Your task to perform on an android device: Open Chrome and go to the settings page Image 0: 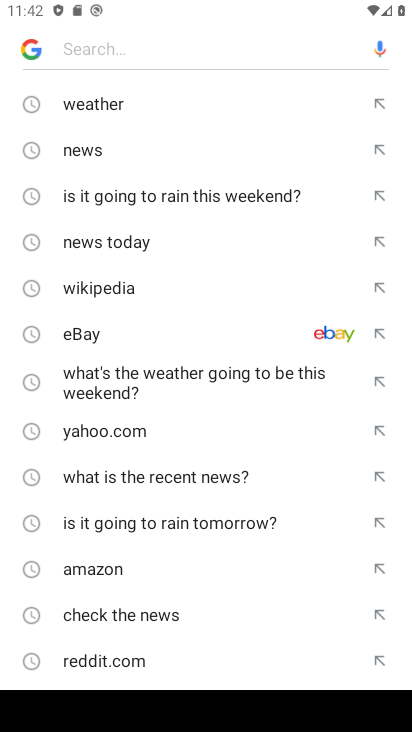
Step 0: press home button
Your task to perform on an android device: Open Chrome and go to the settings page Image 1: 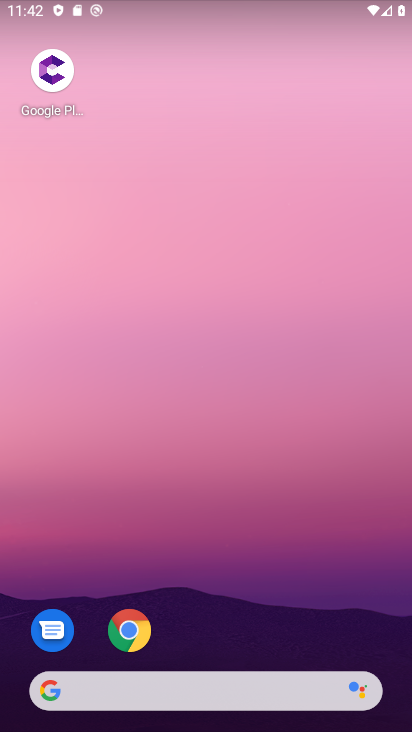
Step 1: click (133, 642)
Your task to perform on an android device: Open Chrome and go to the settings page Image 2: 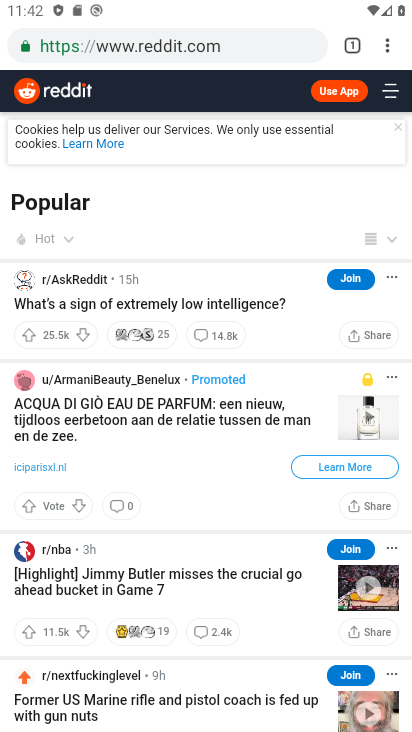
Step 2: click (349, 44)
Your task to perform on an android device: Open Chrome and go to the settings page Image 3: 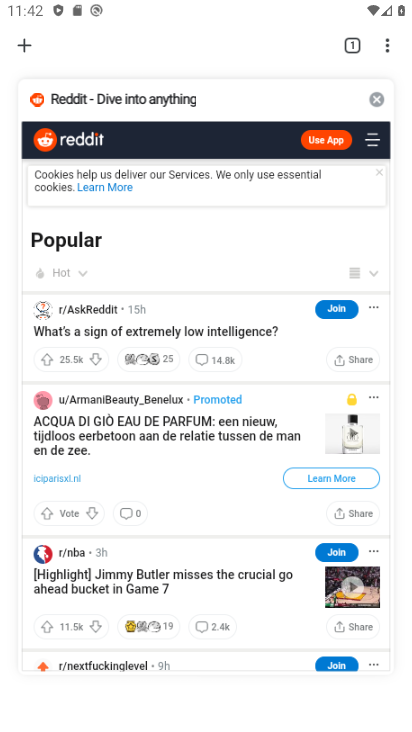
Step 3: click (394, 46)
Your task to perform on an android device: Open Chrome and go to the settings page Image 4: 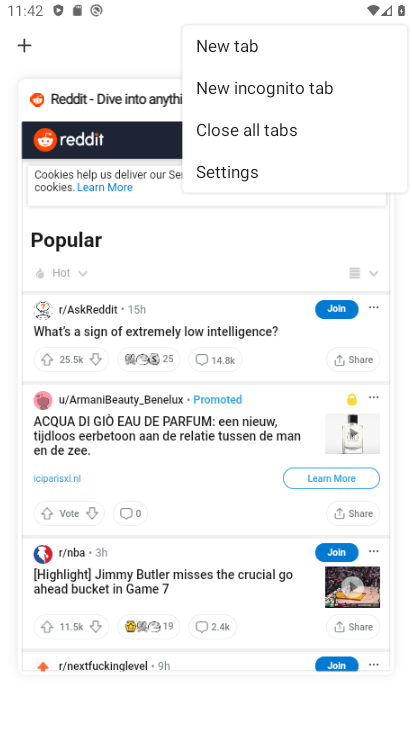
Step 4: click (238, 176)
Your task to perform on an android device: Open Chrome and go to the settings page Image 5: 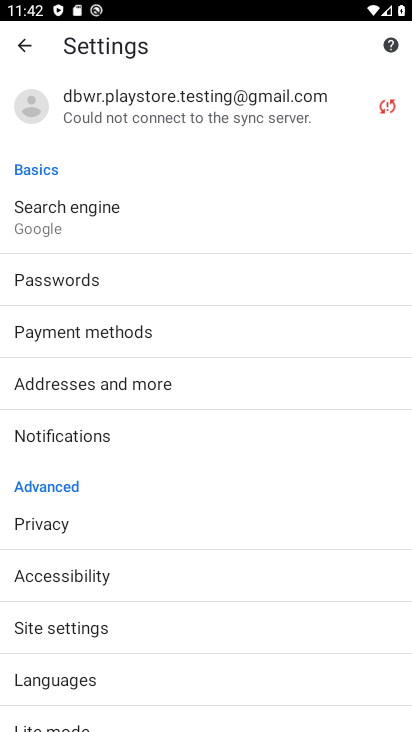
Step 5: click (92, 631)
Your task to perform on an android device: Open Chrome and go to the settings page Image 6: 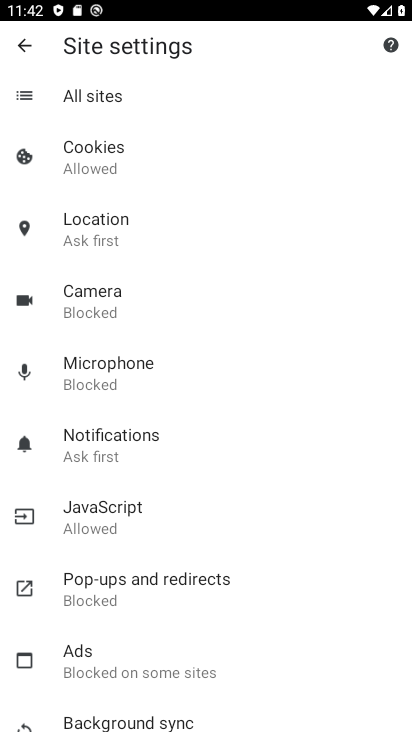
Step 6: task complete